Your task to perform on an android device: turn on priority inbox in the gmail app Image 0: 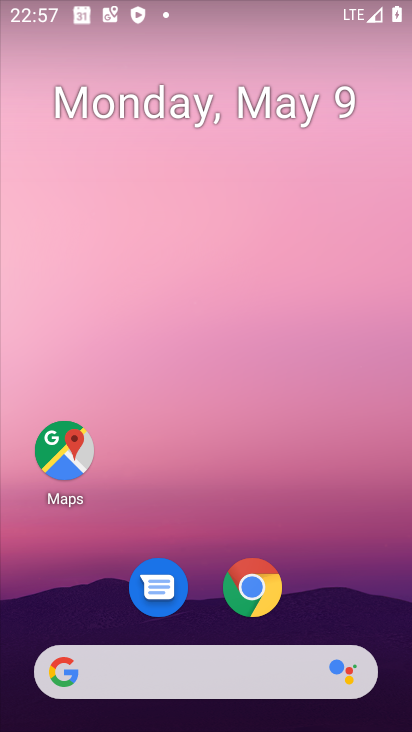
Step 0: drag from (215, 622) to (256, 293)
Your task to perform on an android device: turn on priority inbox in the gmail app Image 1: 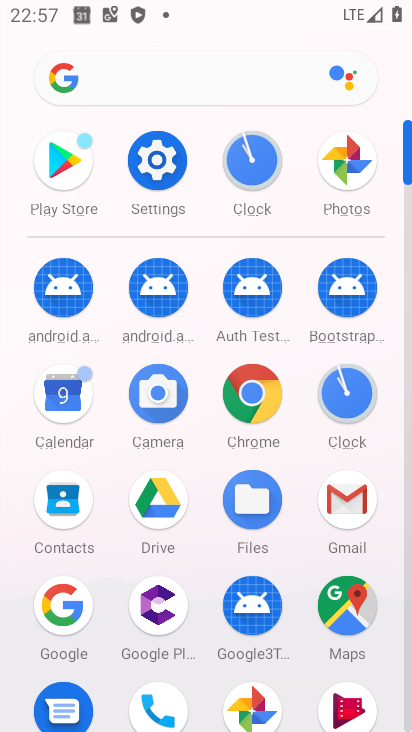
Step 1: click (346, 513)
Your task to perform on an android device: turn on priority inbox in the gmail app Image 2: 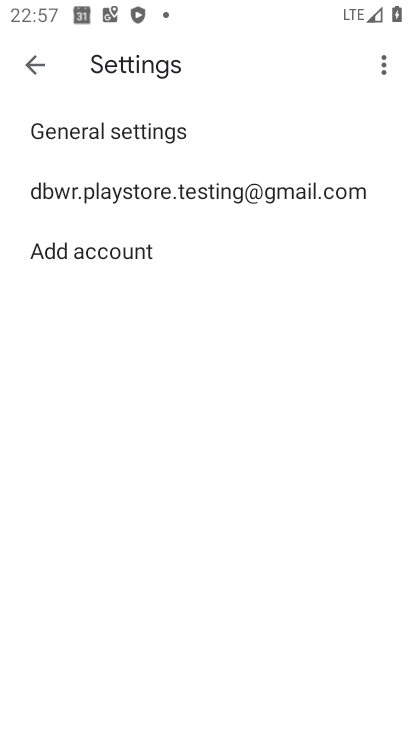
Step 2: click (131, 198)
Your task to perform on an android device: turn on priority inbox in the gmail app Image 3: 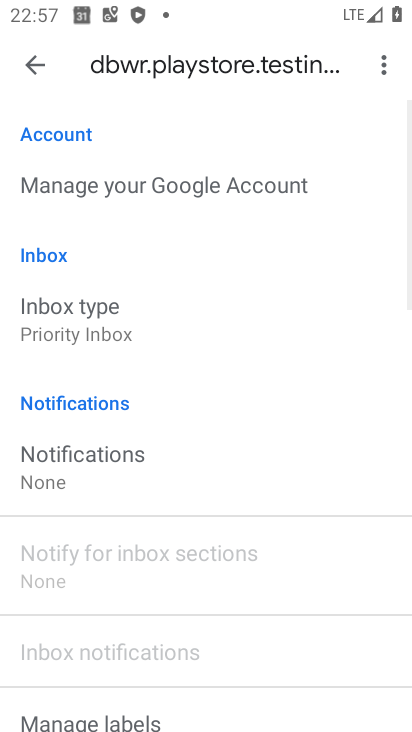
Step 3: click (156, 312)
Your task to perform on an android device: turn on priority inbox in the gmail app Image 4: 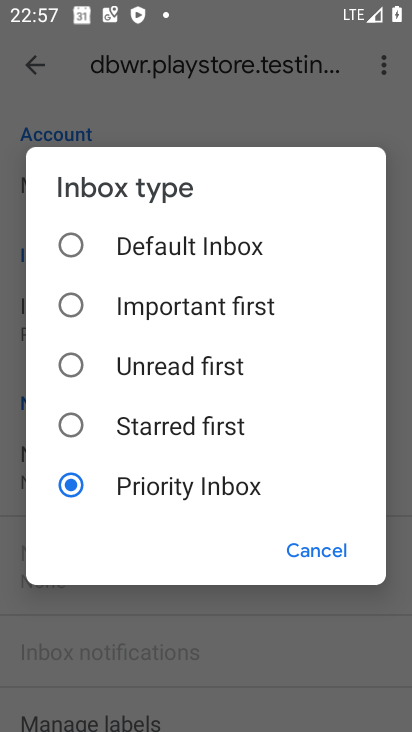
Step 4: task complete